Your task to perform on an android device: open the mobile data screen to see how much data has been used Image 0: 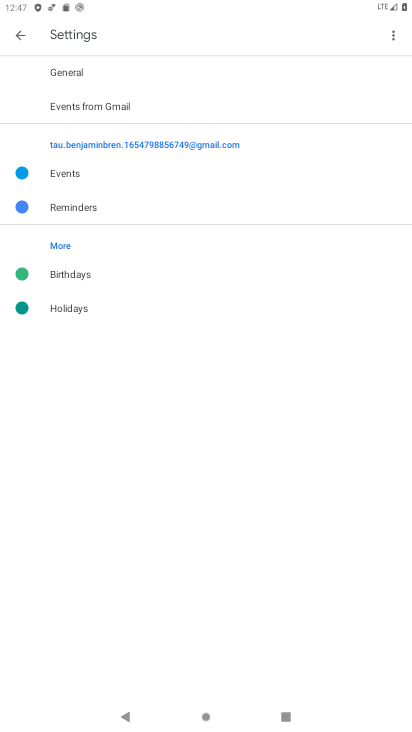
Step 0: press home button
Your task to perform on an android device: open the mobile data screen to see how much data has been used Image 1: 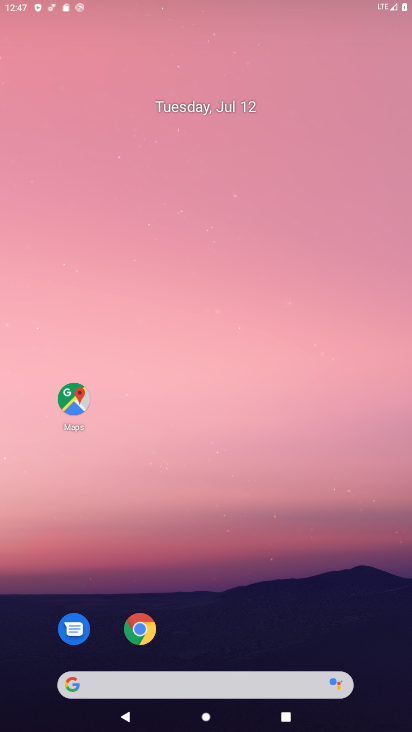
Step 1: drag from (315, 612) to (301, 48)
Your task to perform on an android device: open the mobile data screen to see how much data has been used Image 2: 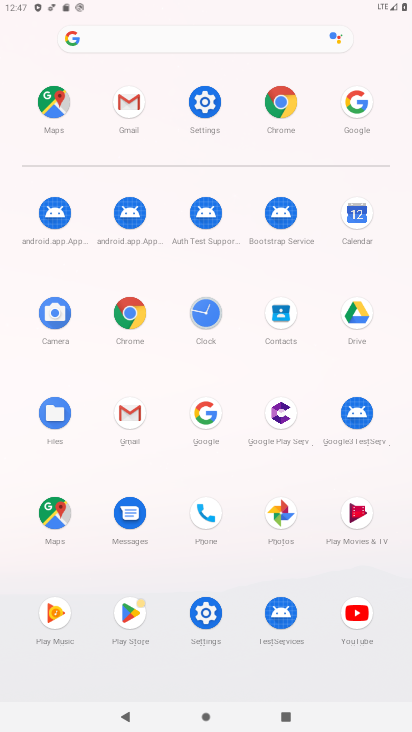
Step 2: click (212, 92)
Your task to perform on an android device: open the mobile data screen to see how much data has been used Image 3: 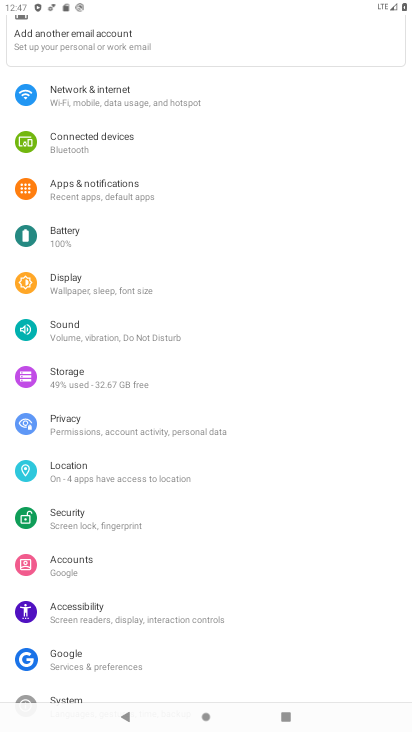
Step 3: drag from (108, 271) to (70, 486)
Your task to perform on an android device: open the mobile data screen to see how much data has been used Image 4: 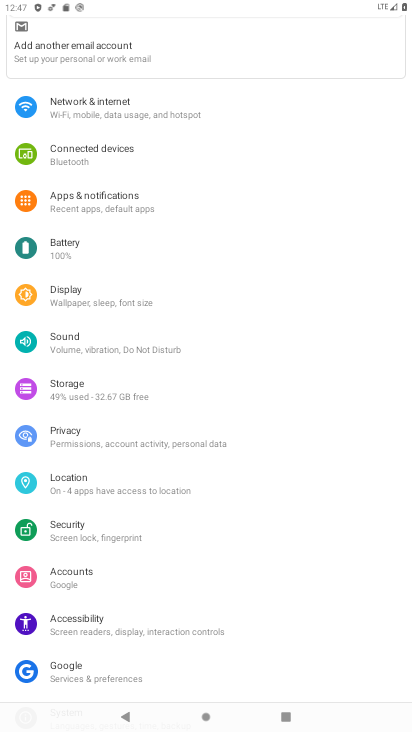
Step 4: click (169, 111)
Your task to perform on an android device: open the mobile data screen to see how much data has been used Image 5: 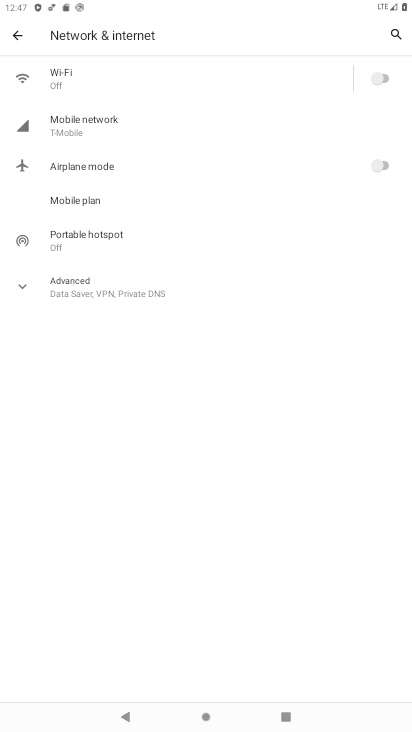
Step 5: click (166, 125)
Your task to perform on an android device: open the mobile data screen to see how much data has been used Image 6: 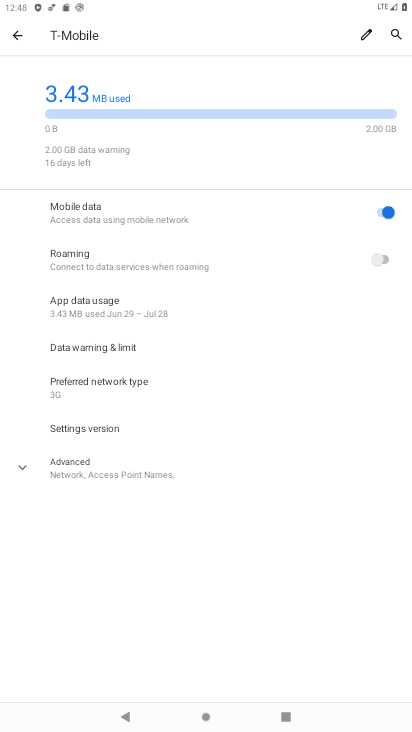
Step 6: task complete